Your task to perform on an android device: open a bookmark in the chrome app Image 0: 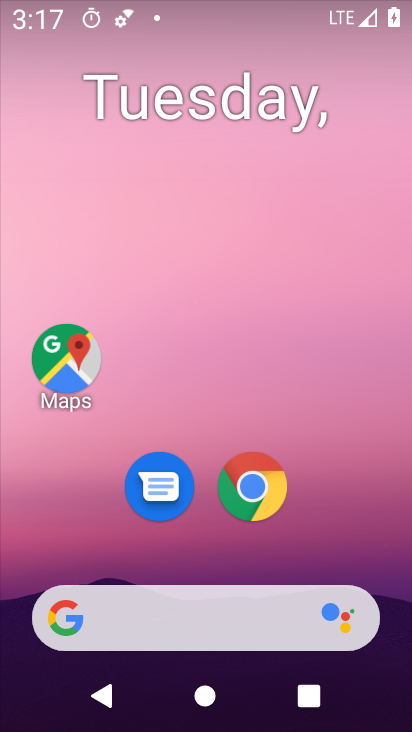
Step 0: press home button
Your task to perform on an android device: open a bookmark in the chrome app Image 1: 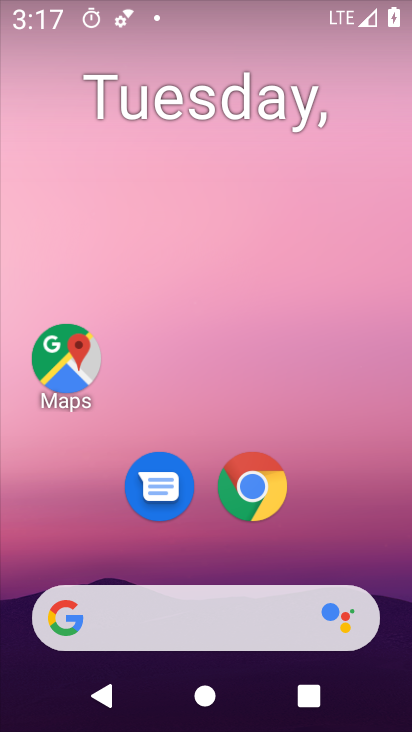
Step 1: drag from (378, 548) to (345, 104)
Your task to perform on an android device: open a bookmark in the chrome app Image 2: 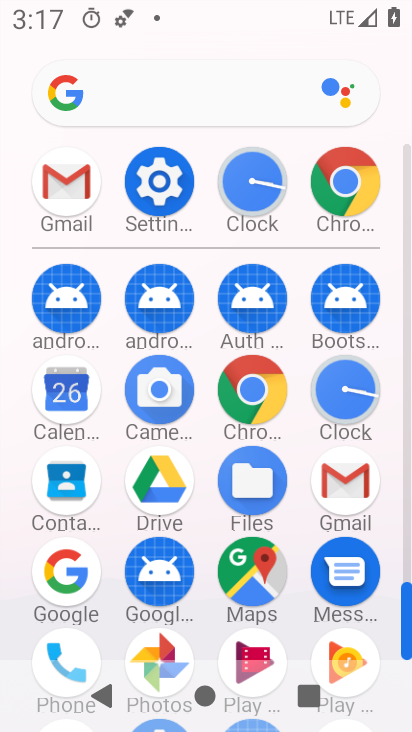
Step 2: click (257, 393)
Your task to perform on an android device: open a bookmark in the chrome app Image 3: 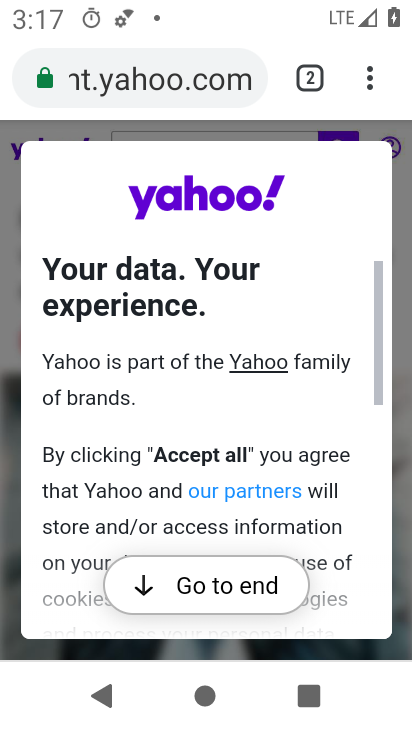
Step 3: click (369, 85)
Your task to perform on an android device: open a bookmark in the chrome app Image 4: 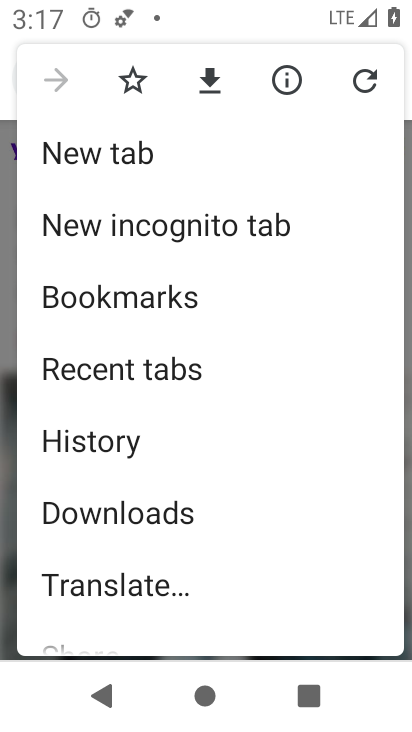
Step 4: drag from (300, 562) to (298, 465)
Your task to perform on an android device: open a bookmark in the chrome app Image 5: 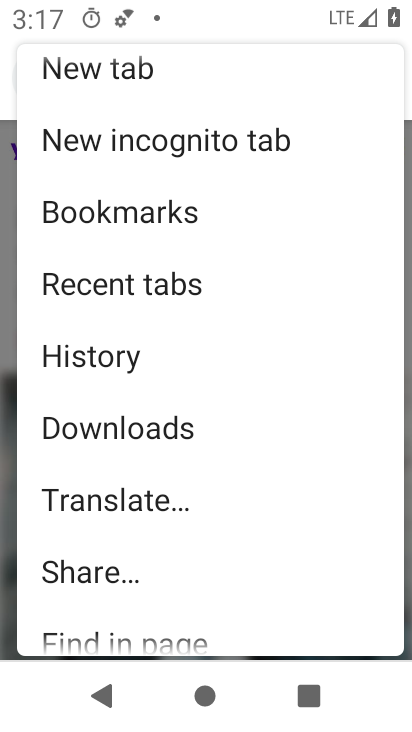
Step 5: drag from (319, 541) to (313, 431)
Your task to perform on an android device: open a bookmark in the chrome app Image 6: 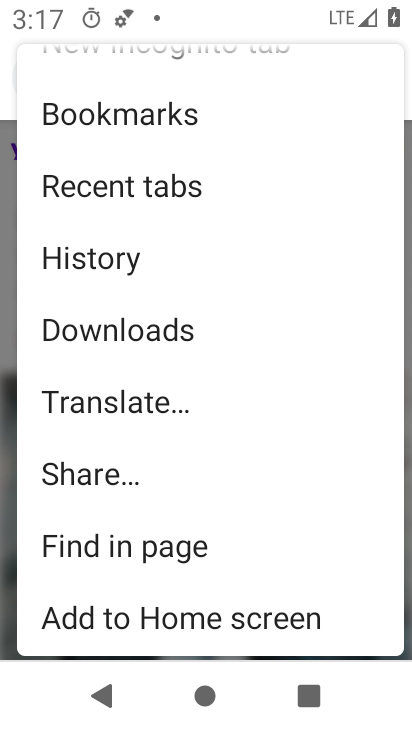
Step 6: drag from (322, 478) to (322, 407)
Your task to perform on an android device: open a bookmark in the chrome app Image 7: 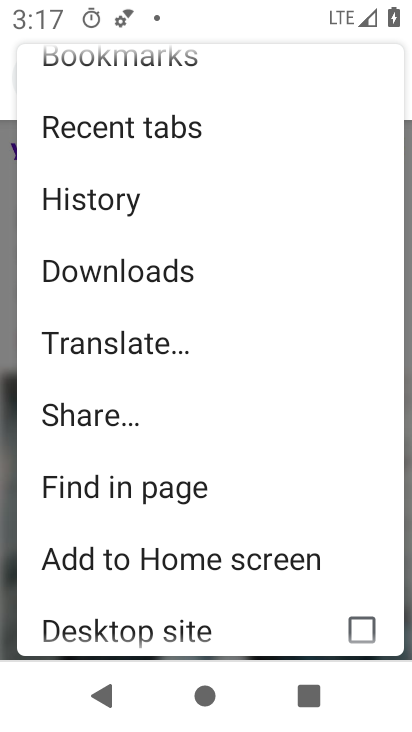
Step 7: drag from (321, 224) to (328, 313)
Your task to perform on an android device: open a bookmark in the chrome app Image 8: 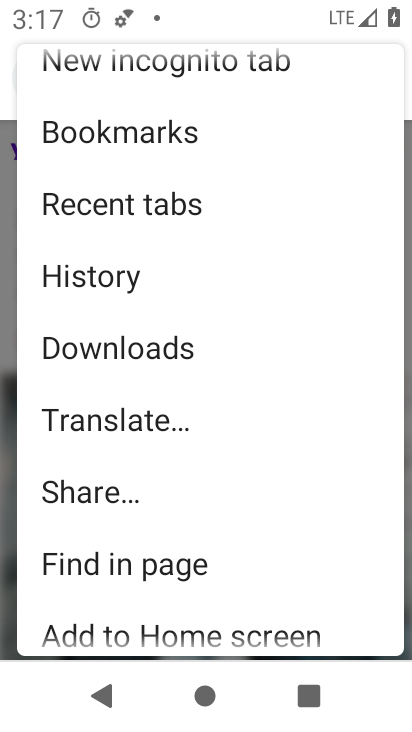
Step 8: drag from (293, 172) to (320, 268)
Your task to perform on an android device: open a bookmark in the chrome app Image 9: 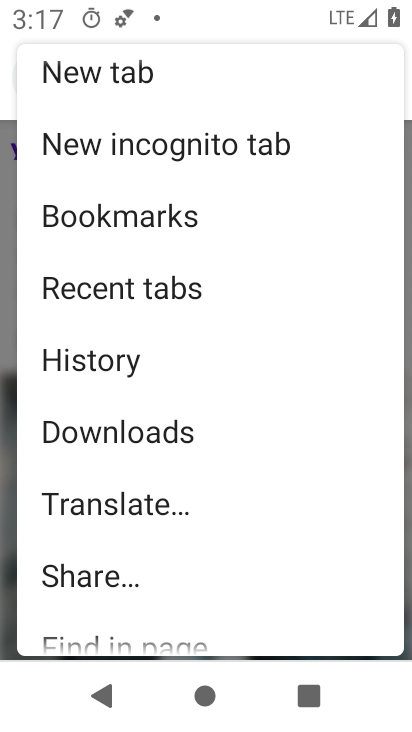
Step 9: click (269, 223)
Your task to perform on an android device: open a bookmark in the chrome app Image 10: 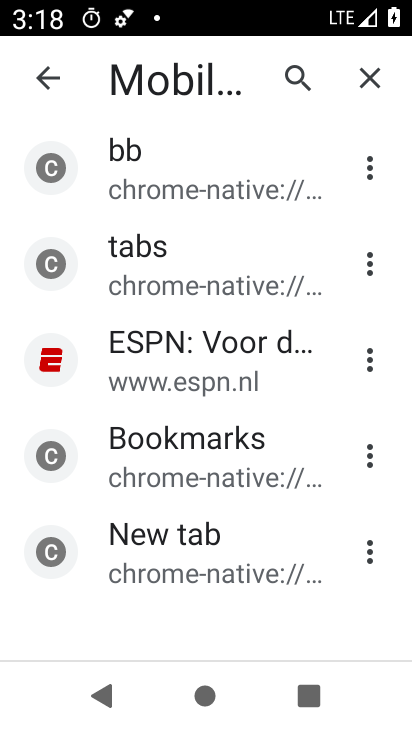
Step 10: click (235, 381)
Your task to perform on an android device: open a bookmark in the chrome app Image 11: 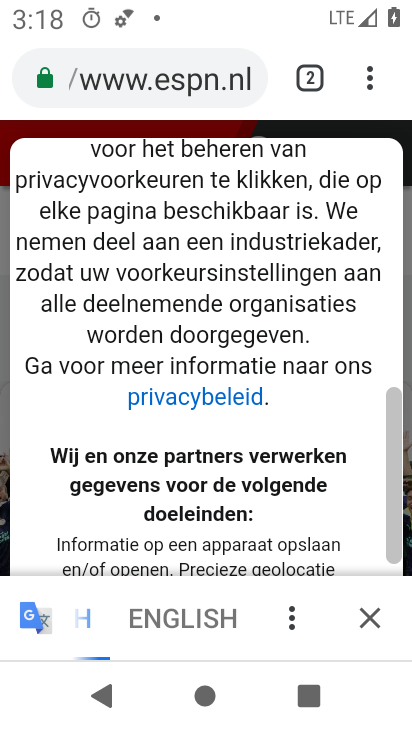
Step 11: task complete